Your task to perform on an android device: What's the weather? Image 0: 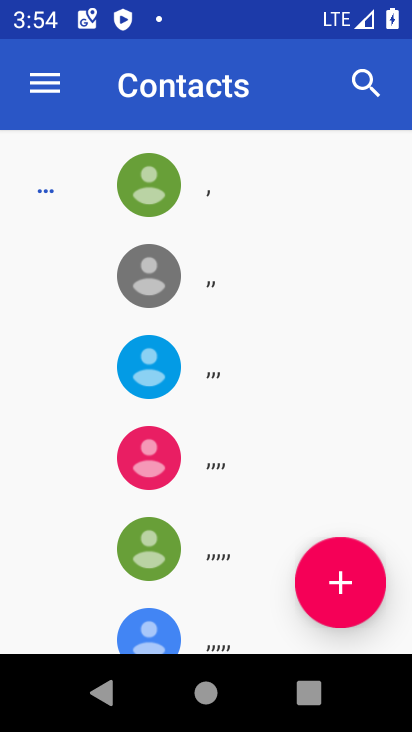
Step 0: press home button
Your task to perform on an android device: What's the weather? Image 1: 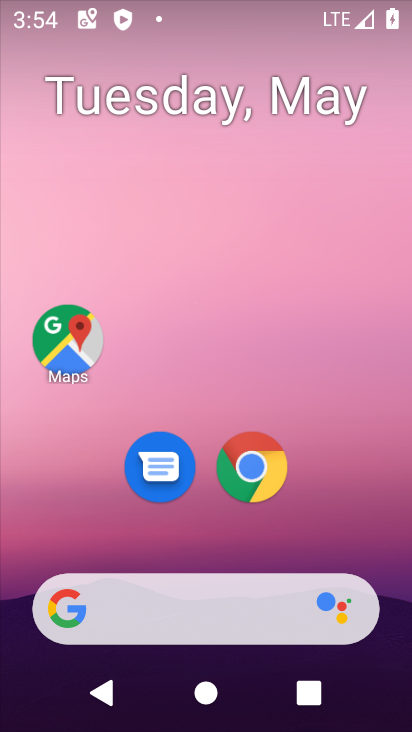
Step 1: click (182, 595)
Your task to perform on an android device: What's the weather? Image 2: 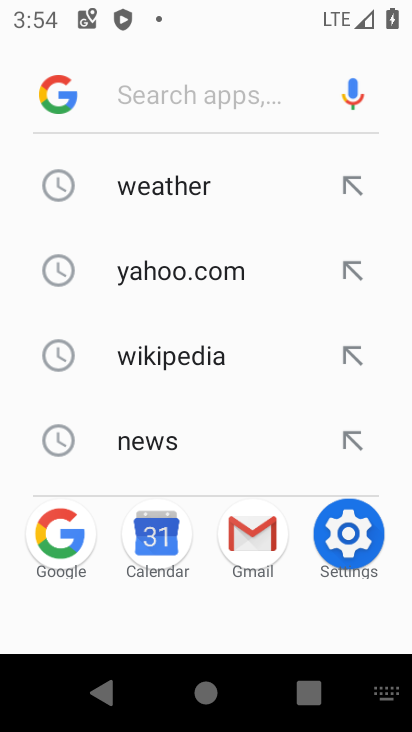
Step 2: click (199, 180)
Your task to perform on an android device: What's the weather? Image 3: 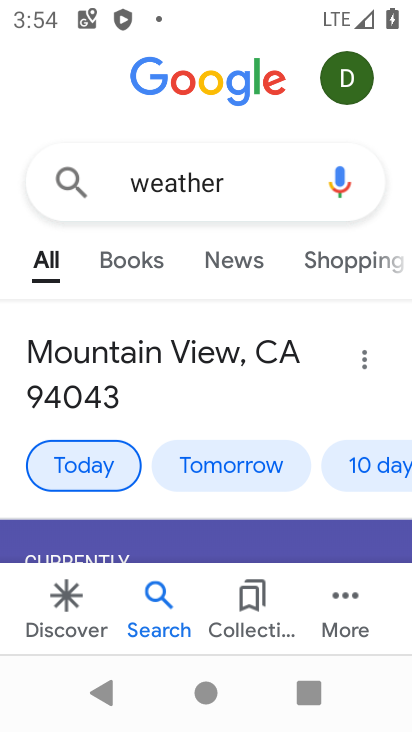
Step 3: task complete